Your task to perform on an android device: Show me productivity apps on the Play Store Image 0: 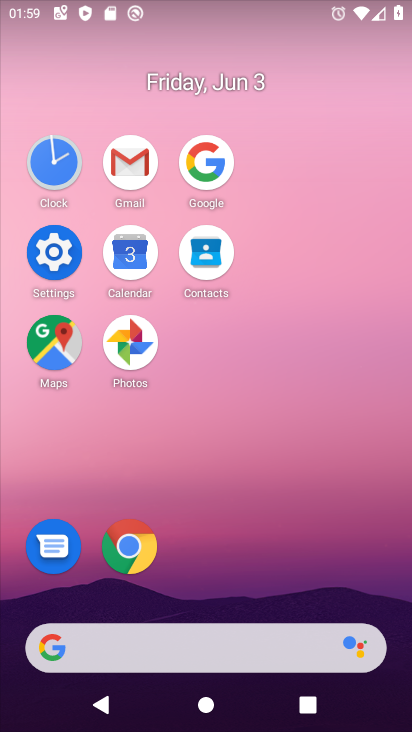
Step 0: drag from (208, 528) to (227, 143)
Your task to perform on an android device: Show me productivity apps on the Play Store Image 1: 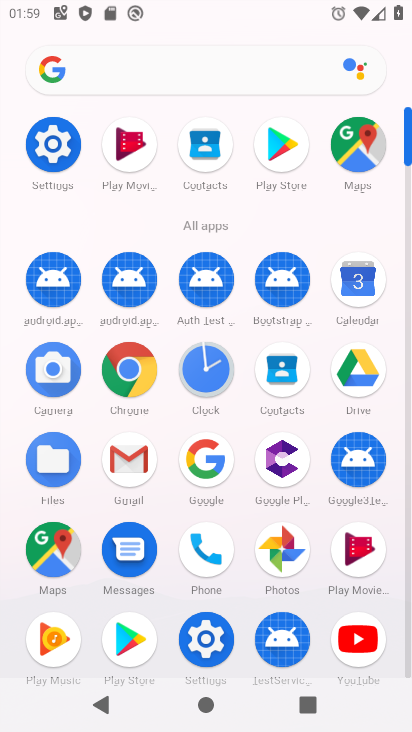
Step 1: click (126, 653)
Your task to perform on an android device: Show me productivity apps on the Play Store Image 2: 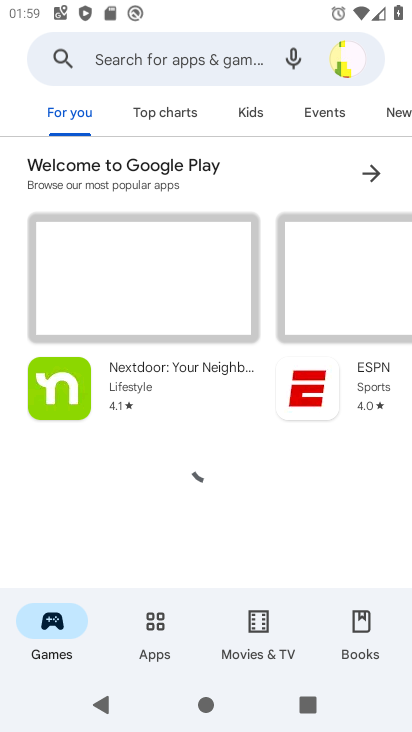
Step 2: click (160, 642)
Your task to perform on an android device: Show me productivity apps on the Play Store Image 3: 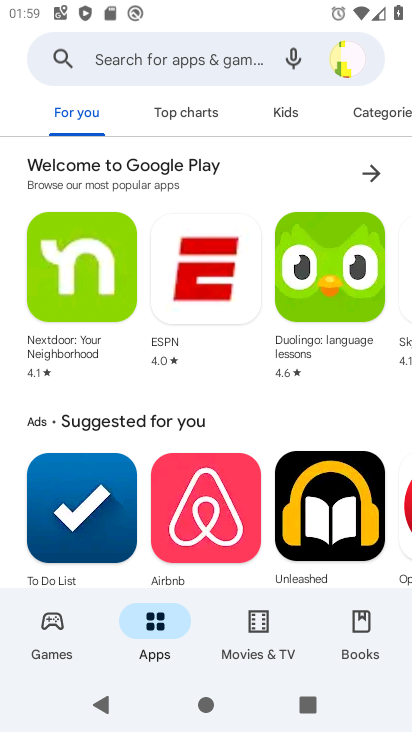
Step 3: click (385, 113)
Your task to perform on an android device: Show me productivity apps on the Play Store Image 4: 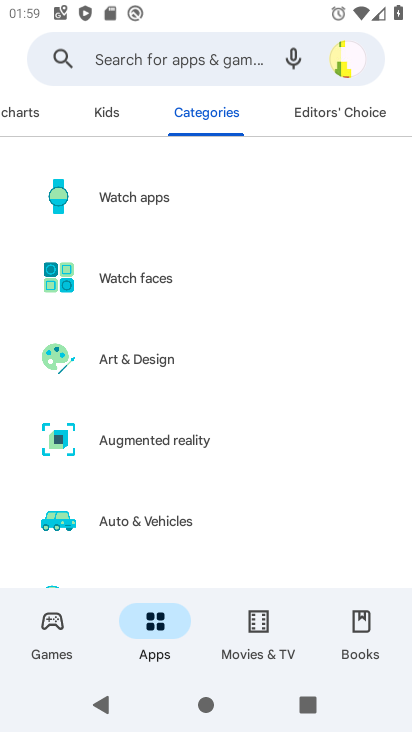
Step 4: drag from (187, 510) to (190, 129)
Your task to perform on an android device: Show me productivity apps on the Play Store Image 5: 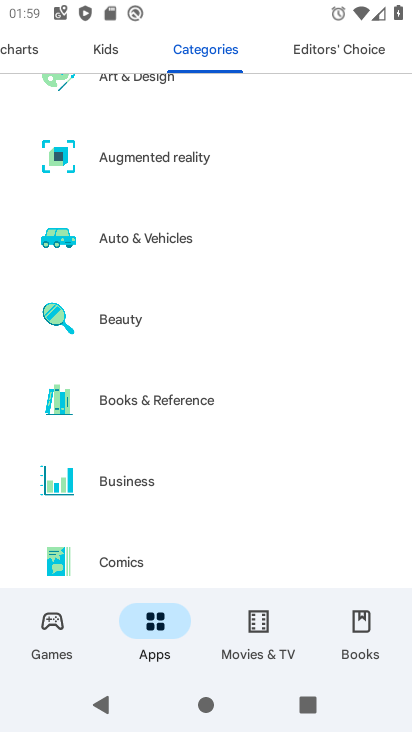
Step 5: drag from (190, 465) to (234, 78)
Your task to perform on an android device: Show me productivity apps on the Play Store Image 6: 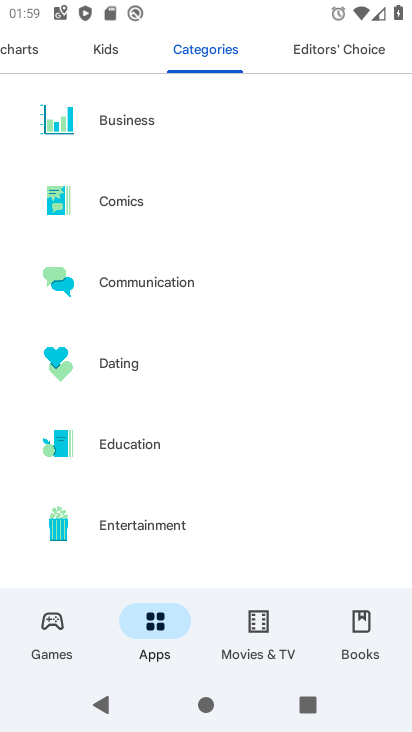
Step 6: drag from (211, 435) to (281, 133)
Your task to perform on an android device: Show me productivity apps on the Play Store Image 7: 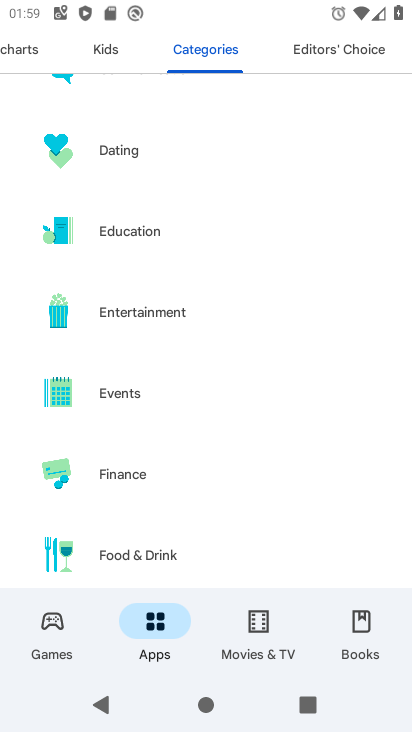
Step 7: drag from (222, 499) to (239, 199)
Your task to perform on an android device: Show me productivity apps on the Play Store Image 8: 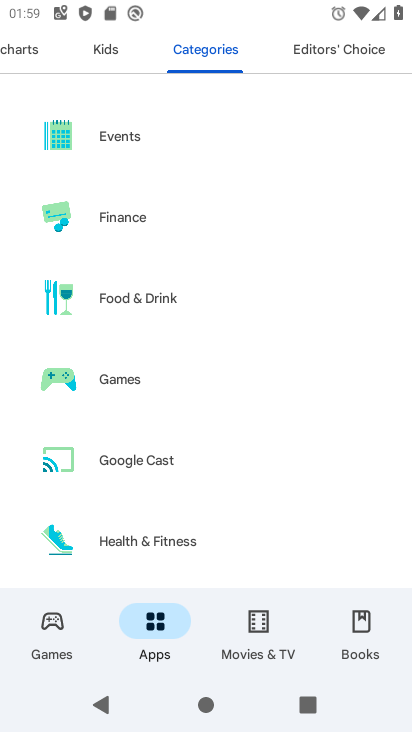
Step 8: drag from (180, 517) to (217, 190)
Your task to perform on an android device: Show me productivity apps on the Play Store Image 9: 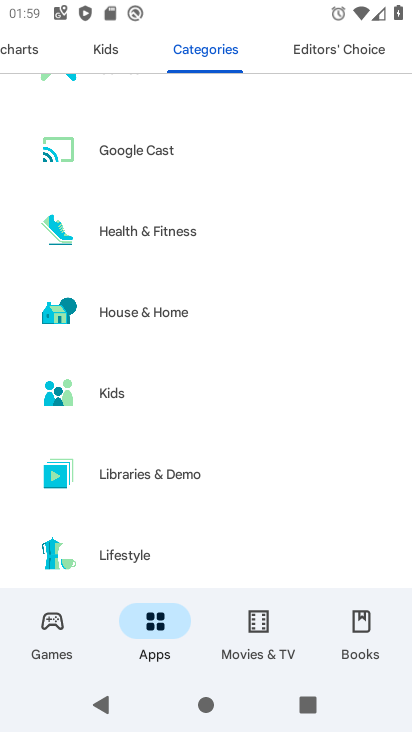
Step 9: drag from (222, 523) to (288, 192)
Your task to perform on an android device: Show me productivity apps on the Play Store Image 10: 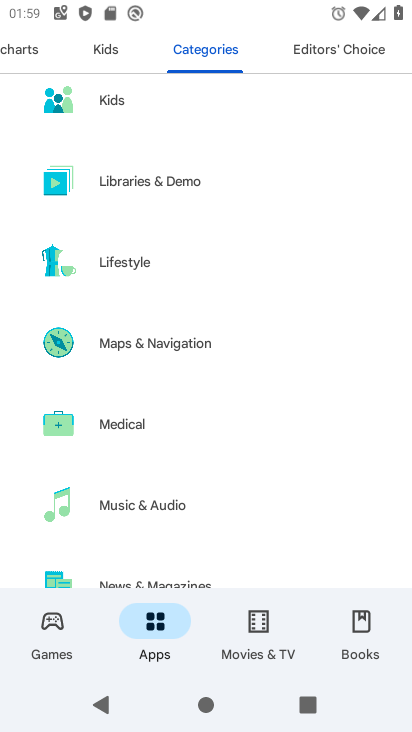
Step 10: drag from (213, 495) to (246, 189)
Your task to perform on an android device: Show me productivity apps on the Play Store Image 11: 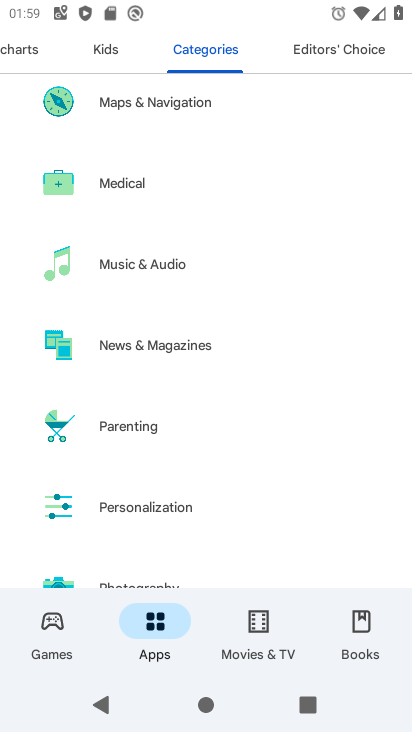
Step 11: drag from (198, 526) to (229, 229)
Your task to perform on an android device: Show me productivity apps on the Play Store Image 12: 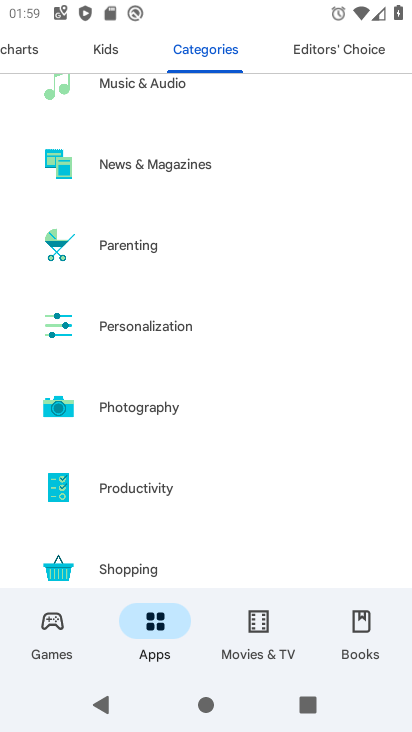
Step 12: click (154, 500)
Your task to perform on an android device: Show me productivity apps on the Play Store Image 13: 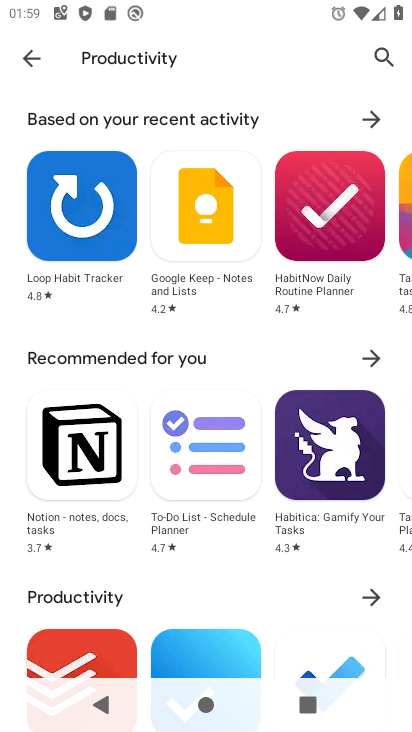
Step 13: task complete